Your task to perform on an android device: turn notification dots on Image 0: 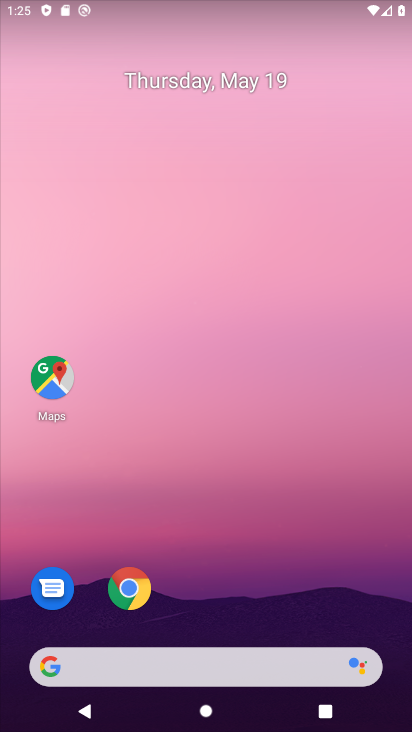
Step 0: drag from (354, 603) to (318, 228)
Your task to perform on an android device: turn notification dots on Image 1: 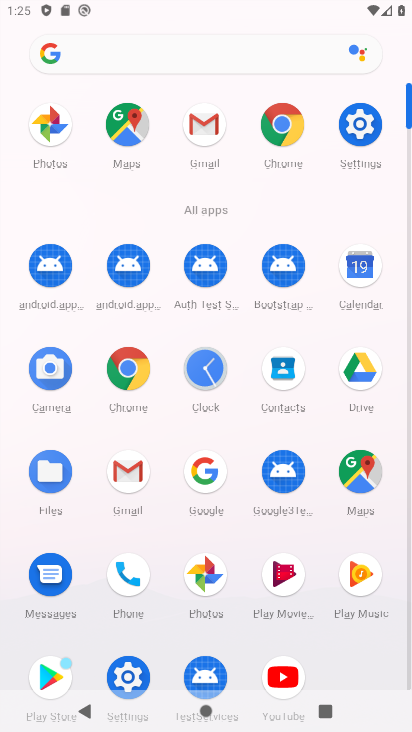
Step 1: click (348, 128)
Your task to perform on an android device: turn notification dots on Image 2: 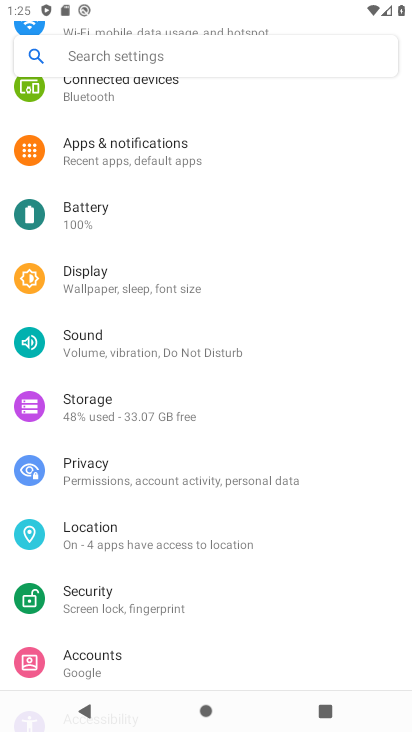
Step 2: click (132, 152)
Your task to perform on an android device: turn notification dots on Image 3: 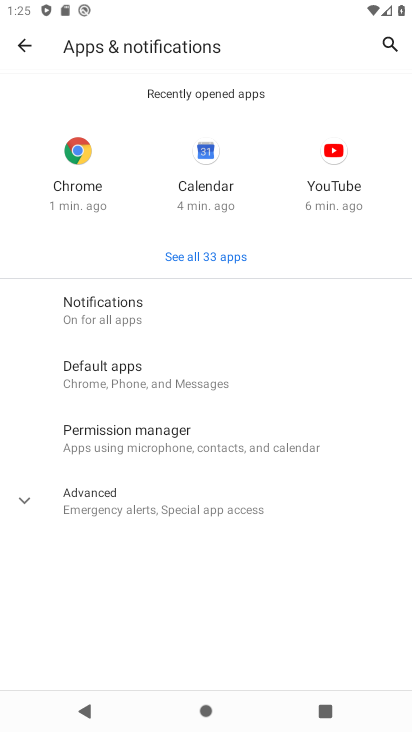
Step 3: click (150, 319)
Your task to perform on an android device: turn notification dots on Image 4: 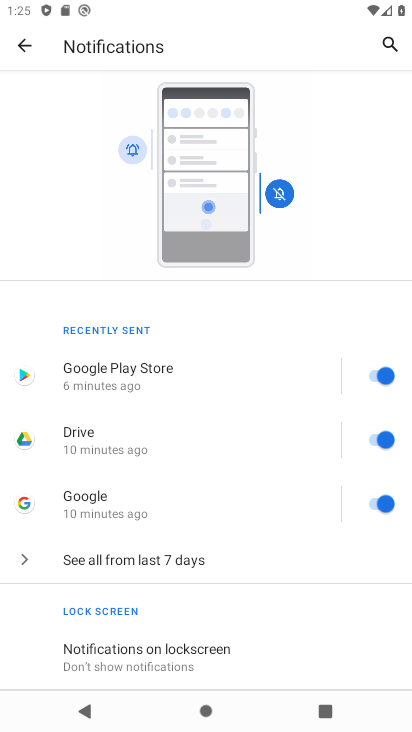
Step 4: drag from (198, 610) to (222, 101)
Your task to perform on an android device: turn notification dots on Image 5: 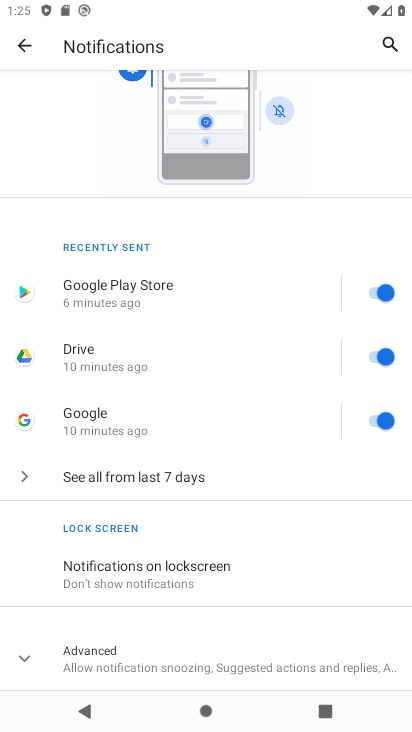
Step 5: click (138, 624)
Your task to perform on an android device: turn notification dots on Image 6: 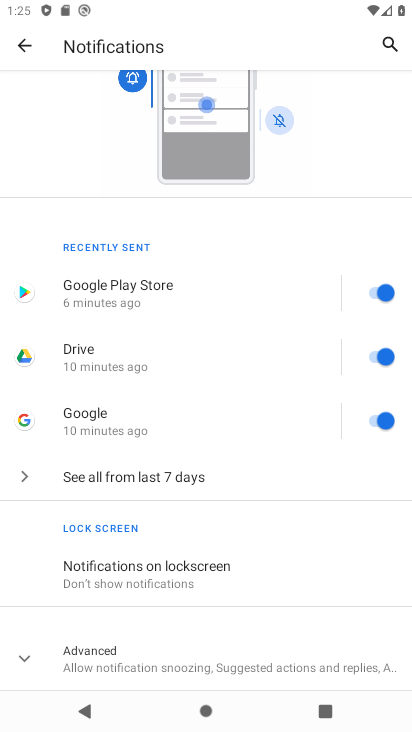
Step 6: click (112, 649)
Your task to perform on an android device: turn notification dots on Image 7: 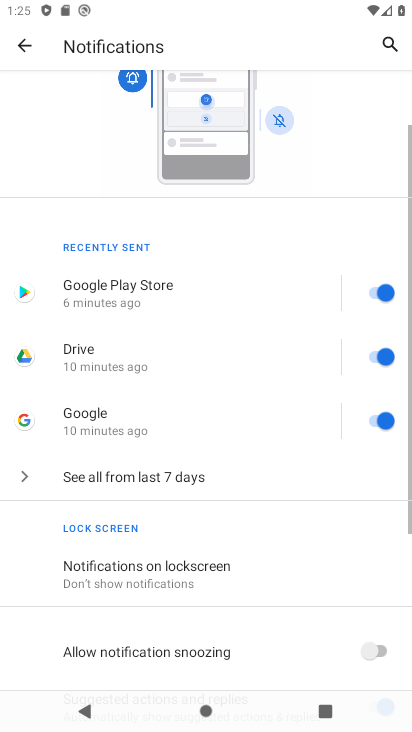
Step 7: task complete